Your task to perform on an android device: open app "Spotify: Music and Podcasts" Image 0: 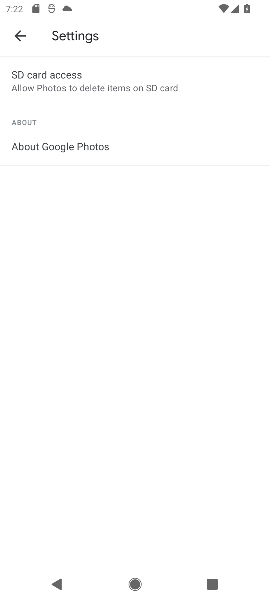
Step 0: press home button
Your task to perform on an android device: open app "Spotify: Music and Podcasts" Image 1: 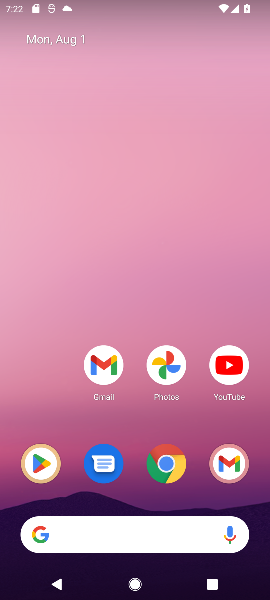
Step 1: click (55, 464)
Your task to perform on an android device: open app "Spotify: Music and Podcasts" Image 2: 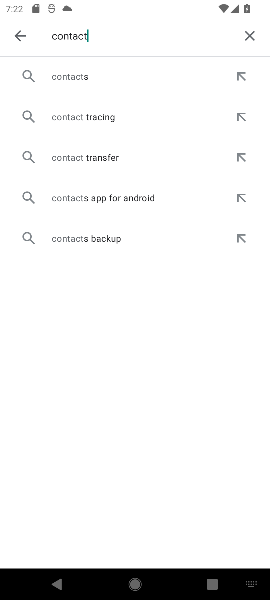
Step 2: click (250, 45)
Your task to perform on an android device: open app "Spotify: Music and Podcasts" Image 3: 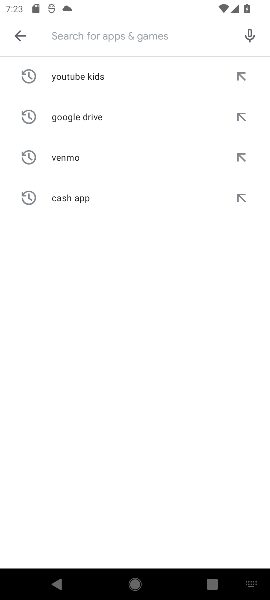
Step 3: type "spotify"
Your task to perform on an android device: open app "Spotify: Music and Podcasts" Image 4: 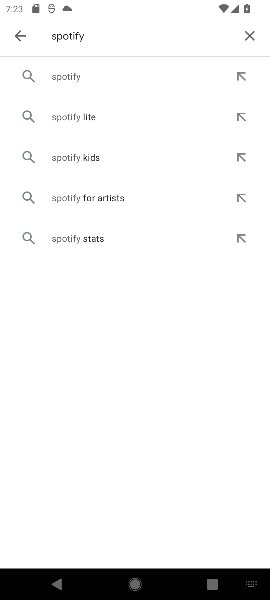
Step 4: click (80, 85)
Your task to perform on an android device: open app "Spotify: Music and Podcasts" Image 5: 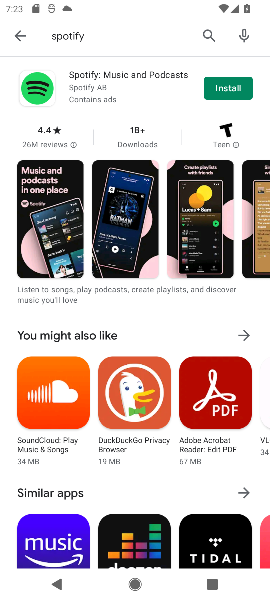
Step 5: click (219, 90)
Your task to perform on an android device: open app "Spotify: Music and Podcasts" Image 6: 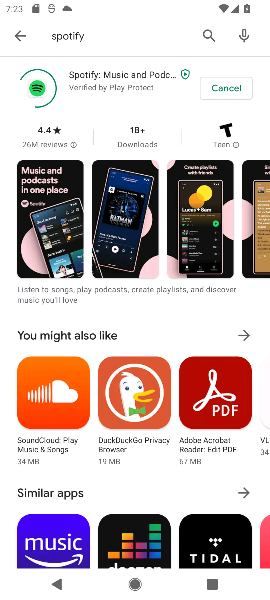
Step 6: task complete